Your task to perform on an android device: toggle notification dots Image 0: 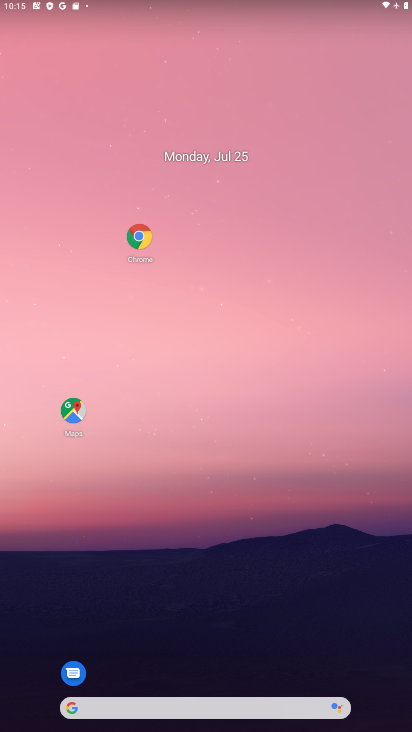
Step 0: drag from (236, 662) to (276, 33)
Your task to perform on an android device: toggle notification dots Image 1: 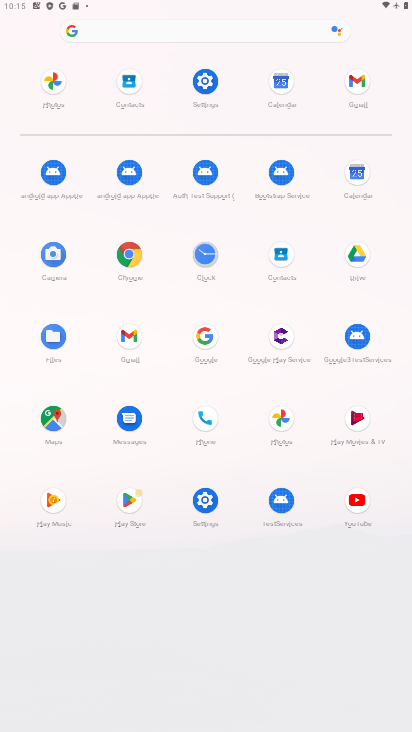
Step 1: click (219, 98)
Your task to perform on an android device: toggle notification dots Image 2: 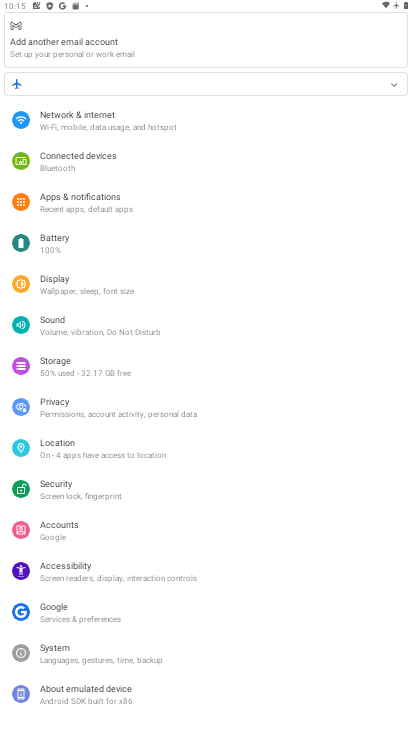
Step 2: click (112, 130)
Your task to perform on an android device: toggle notification dots Image 3: 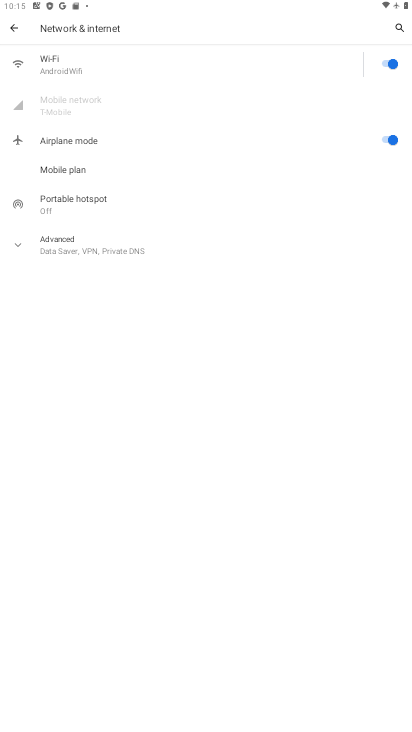
Step 3: task complete